Your task to perform on an android device: set default search engine in the chrome app Image 0: 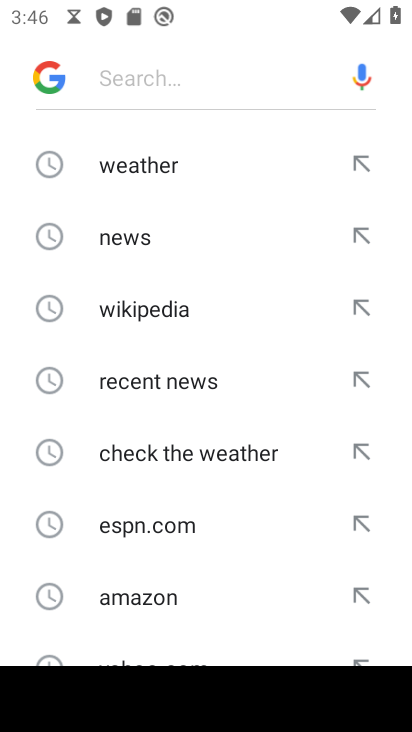
Step 0: press home button
Your task to perform on an android device: set default search engine in the chrome app Image 1: 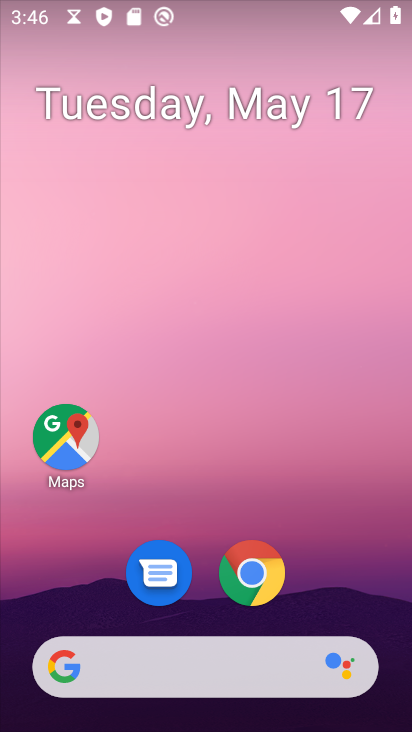
Step 1: click (266, 581)
Your task to perform on an android device: set default search engine in the chrome app Image 2: 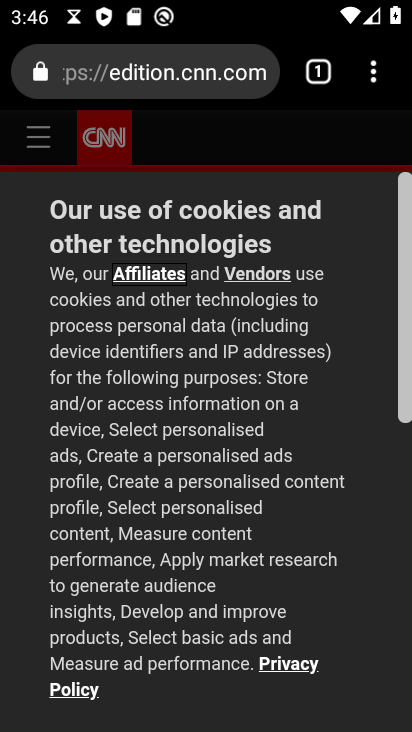
Step 2: click (372, 88)
Your task to perform on an android device: set default search engine in the chrome app Image 3: 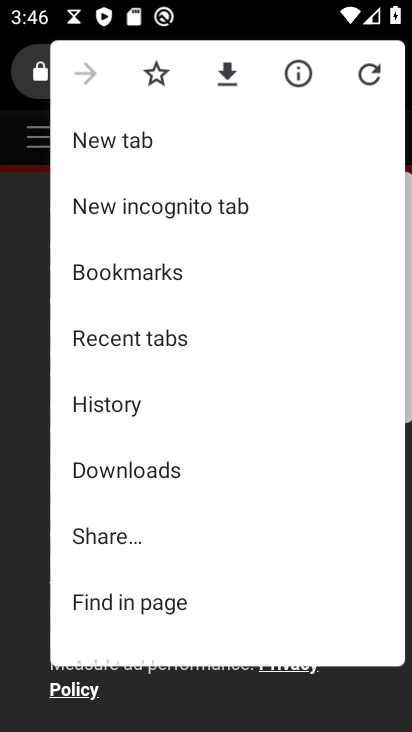
Step 3: drag from (236, 608) to (244, 221)
Your task to perform on an android device: set default search engine in the chrome app Image 4: 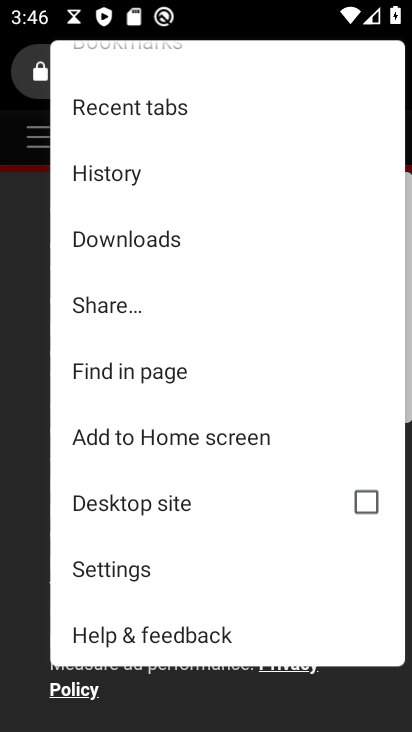
Step 4: click (217, 576)
Your task to perform on an android device: set default search engine in the chrome app Image 5: 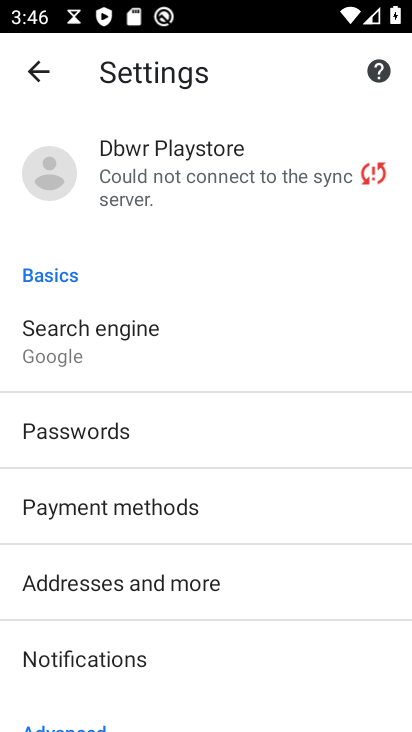
Step 5: click (217, 334)
Your task to perform on an android device: set default search engine in the chrome app Image 6: 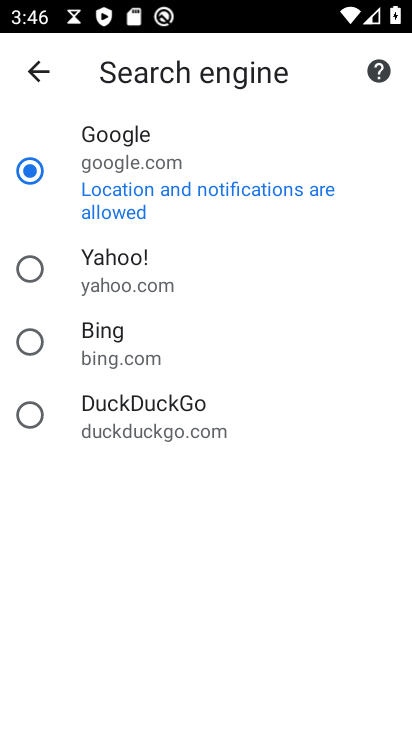
Step 6: click (193, 256)
Your task to perform on an android device: set default search engine in the chrome app Image 7: 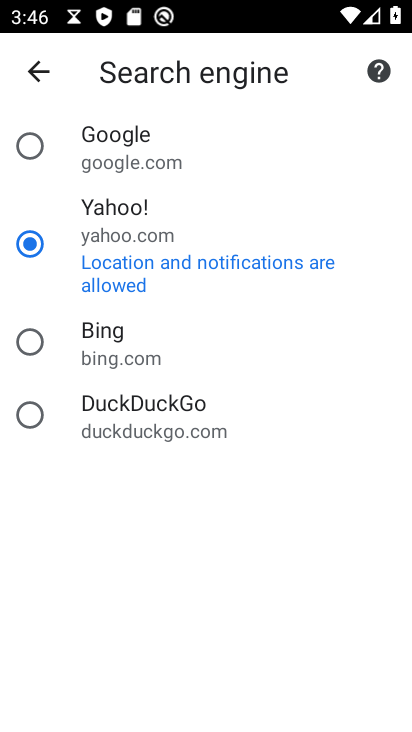
Step 7: task complete